Your task to perform on an android device: Go to Wikipedia Image 0: 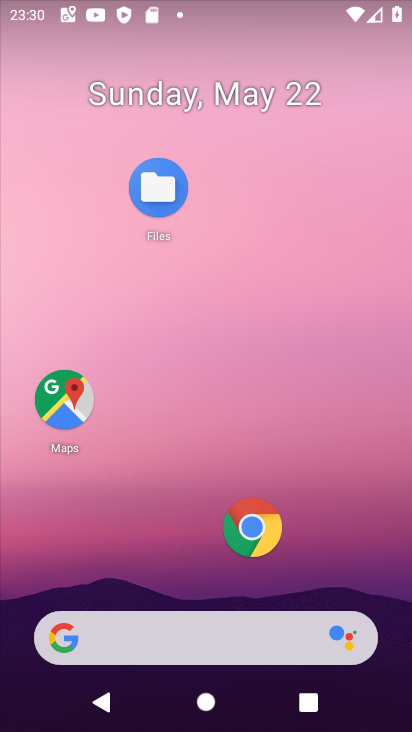
Step 0: click (263, 529)
Your task to perform on an android device: Go to Wikipedia Image 1: 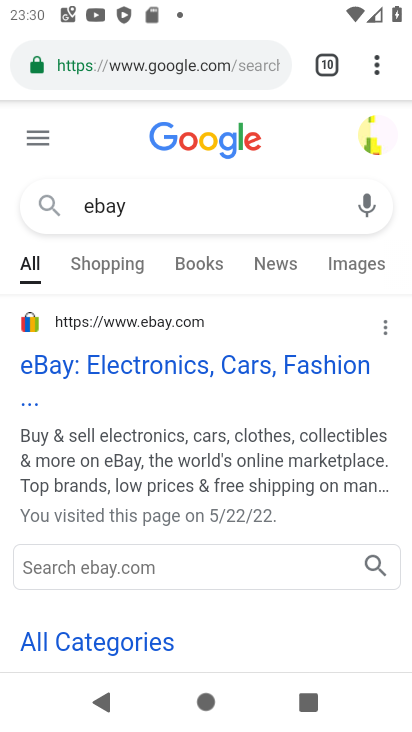
Step 1: click (375, 59)
Your task to perform on an android device: Go to Wikipedia Image 2: 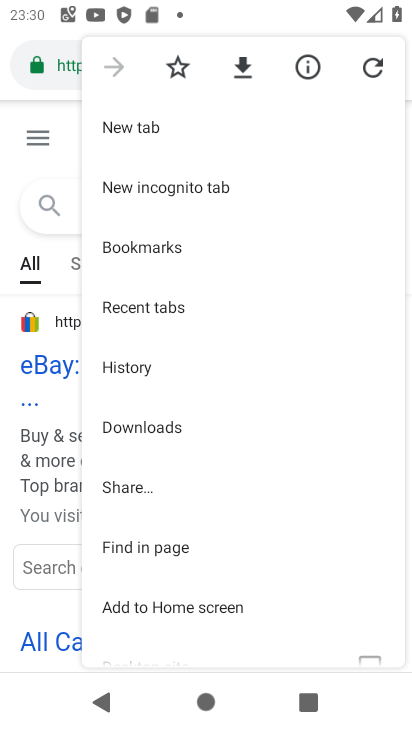
Step 2: click (134, 110)
Your task to perform on an android device: Go to Wikipedia Image 3: 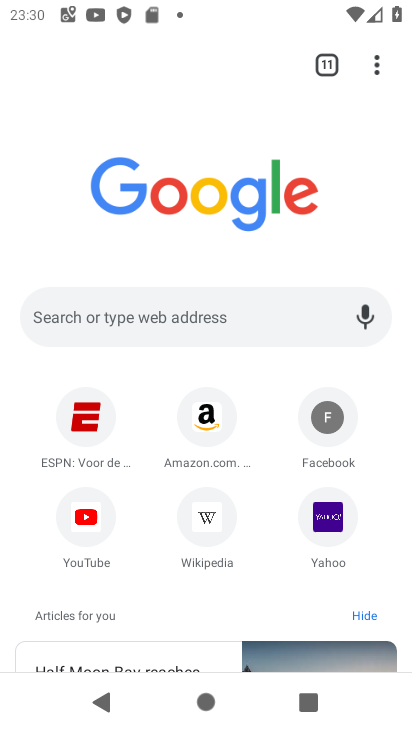
Step 3: click (205, 519)
Your task to perform on an android device: Go to Wikipedia Image 4: 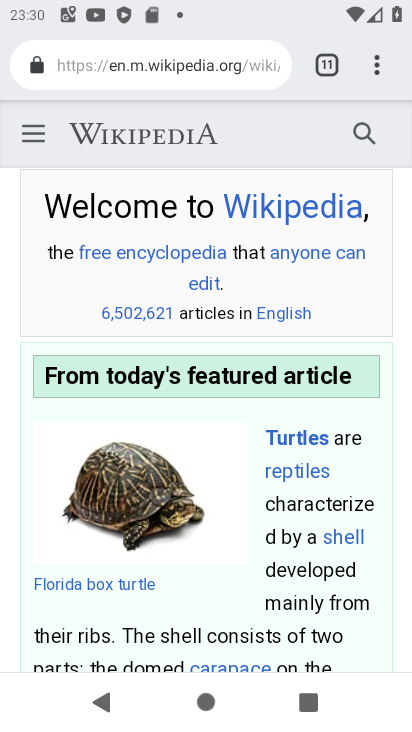
Step 4: task complete